Your task to perform on an android device: turn notification dots on Image 0: 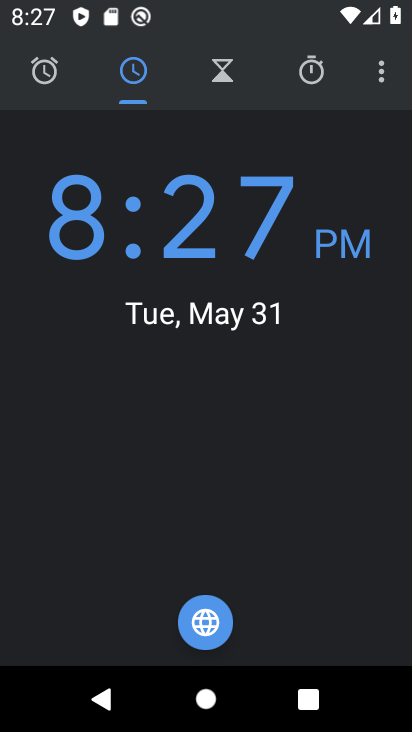
Step 0: press home button
Your task to perform on an android device: turn notification dots on Image 1: 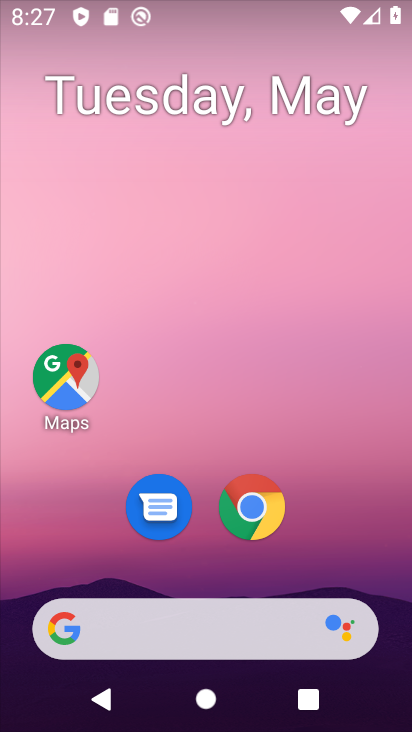
Step 1: drag from (378, 583) to (248, 163)
Your task to perform on an android device: turn notification dots on Image 2: 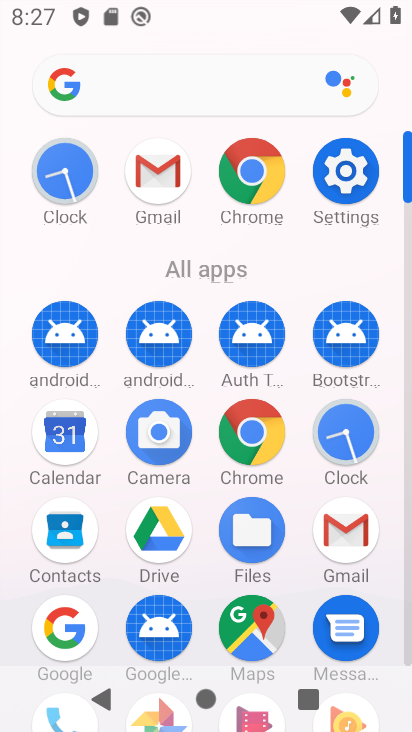
Step 2: click (354, 185)
Your task to perform on an android device: turn notification dots on Image 3: 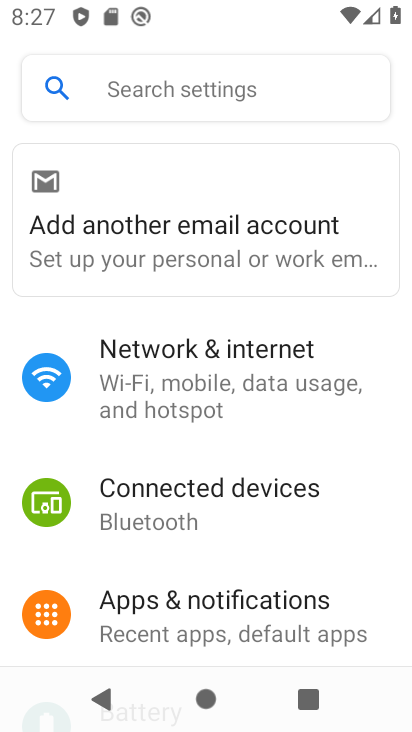
Step 3: click (289, 620)
Your task to perform on an android device: turn notification dots on Image 4: 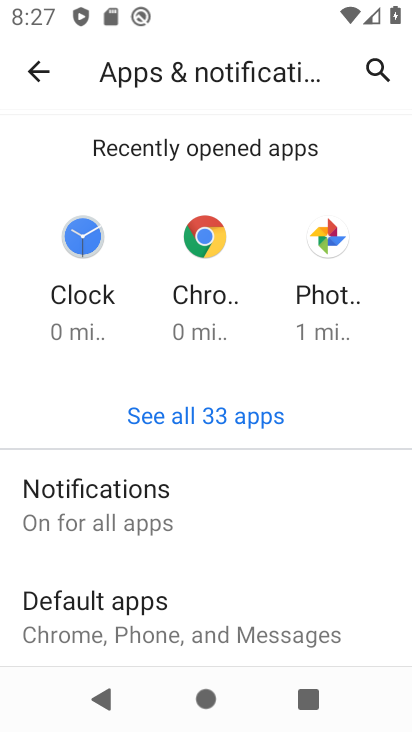
Step 4: click (216, 516)
Your task to perform on an android device: turn notification dots on Image 5: 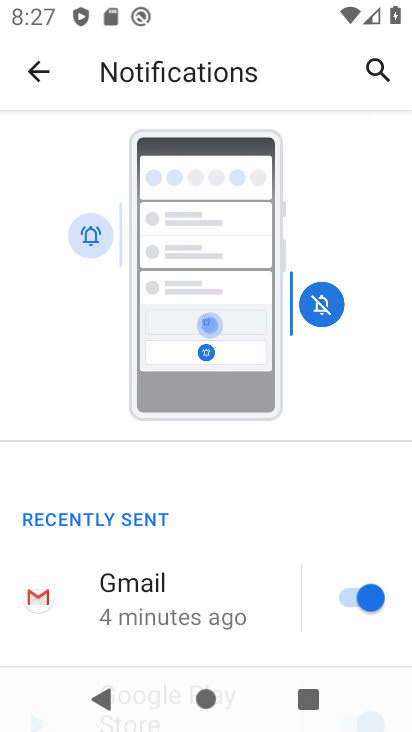
Step 5: drag from (258, 612) to (215, 85)
Your task to perform on an android device: turn notification dots on Image 6: 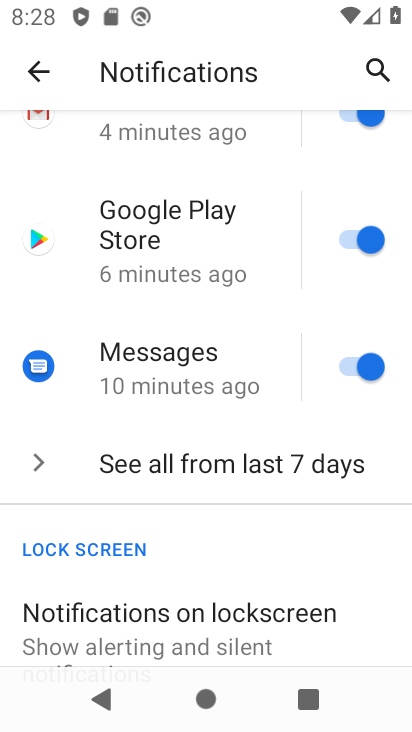
Step 6: drag from (248, 622) to (243, 344)
Your task to perform on an android device: turn notification dots on Image 7: 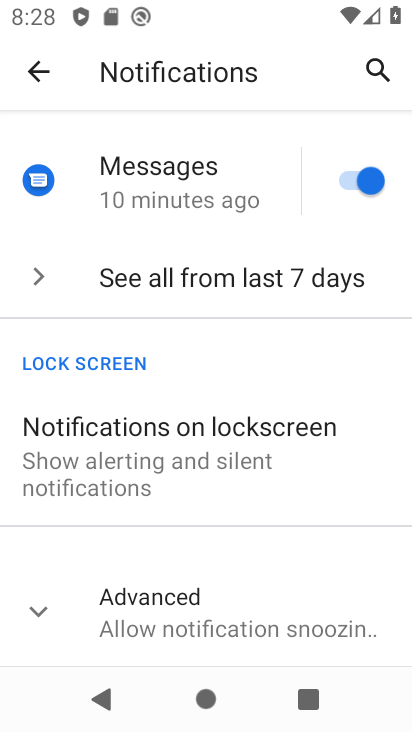
Step 7: click (281, 600)
Your task to perform on an android device: turn notification dots on Image 8: 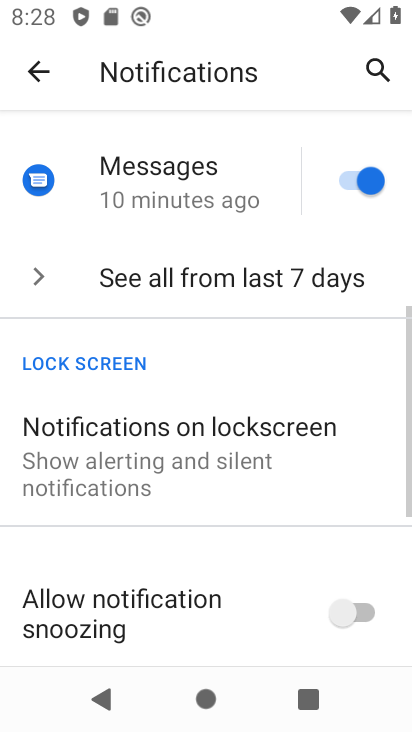
Step 8: task complete